Your task to perform on an android device: Show me popular games on the Play Store Image 0: 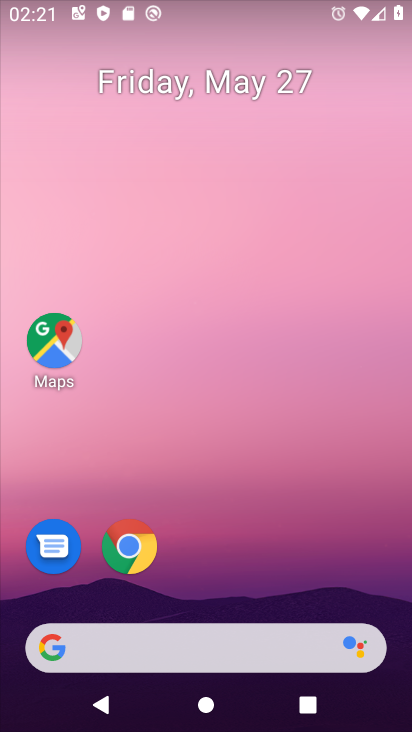
Step 0: drag from (223, 677) to (277, 150)
Your task to perform on an android device: Show me popular games on the Play Store Image 1: 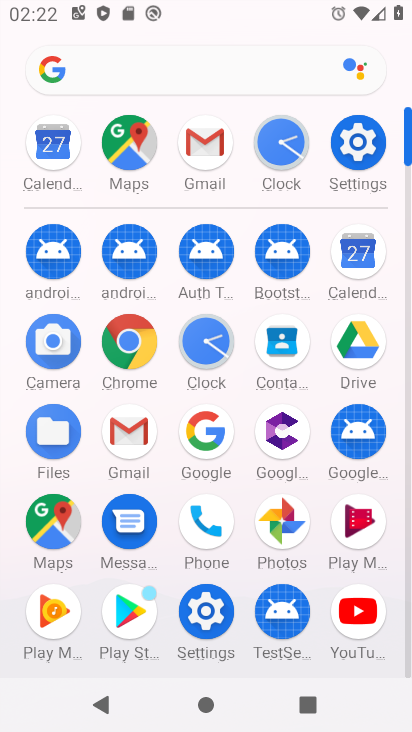
Step 1: click (142, 598)
Your task to perform on an android device: Show me popular games on the Play Store Image 2: 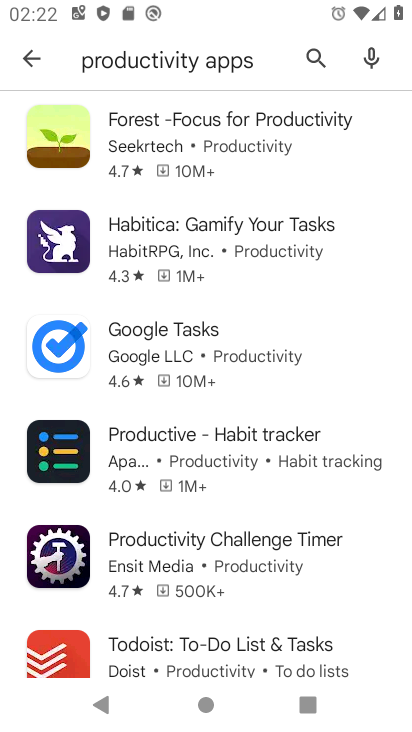
Step 2: click (312, 56)
Your task to perform on an android device: Show me popular games on the Play Store Image 3: 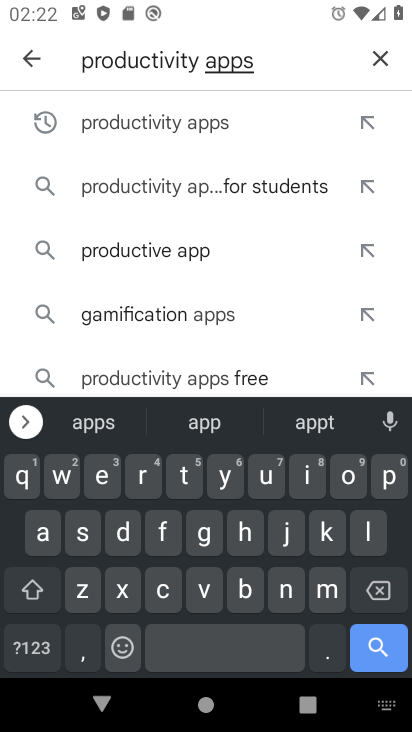
Step 3: click (370, 54)
Your task to perform on an android device: Show me popular games on the Play Store Image 4: 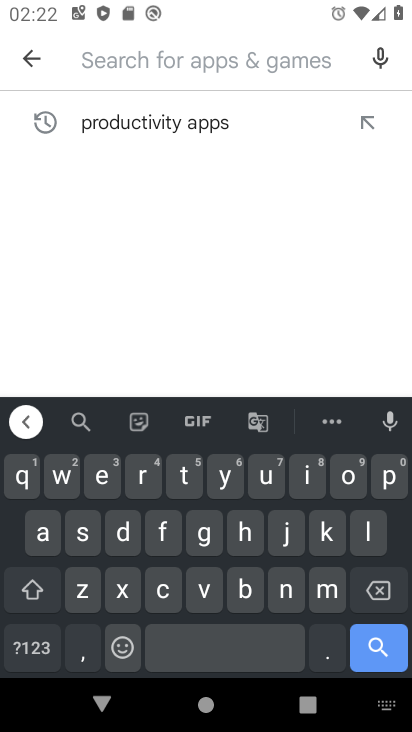
Step 4: click (385, 489)
Your task to perform on an android device: Show me popular games on the Play Store Image 5: 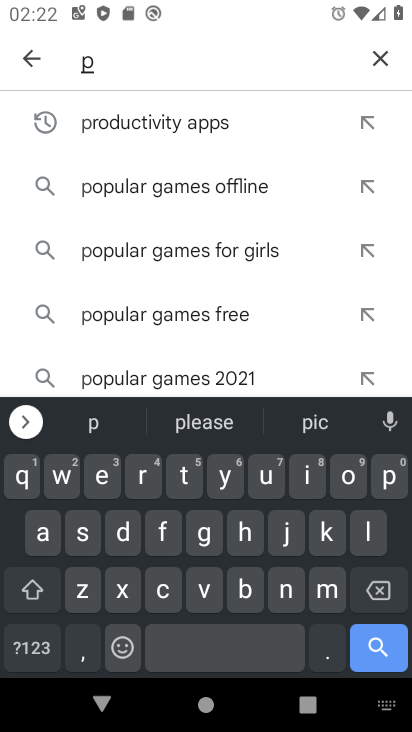
Step 5: click (345, 479)
Your task to perform on an android device: Show me popular games on the Play Store Image 6: 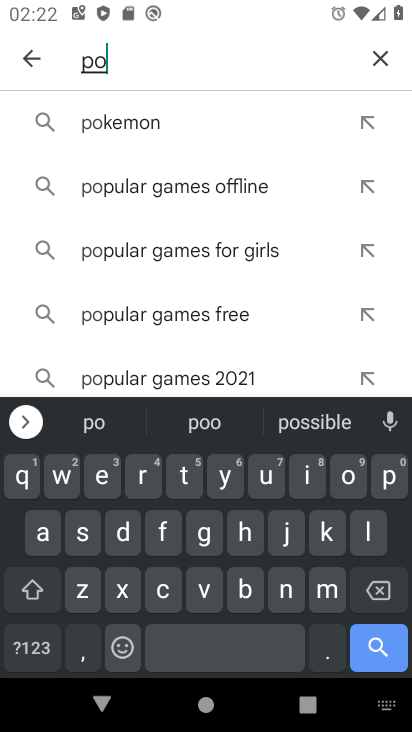
Step 6: click (388, 487)
Your task to perform on an android device: Show me popular games on the Play Store Image 7: 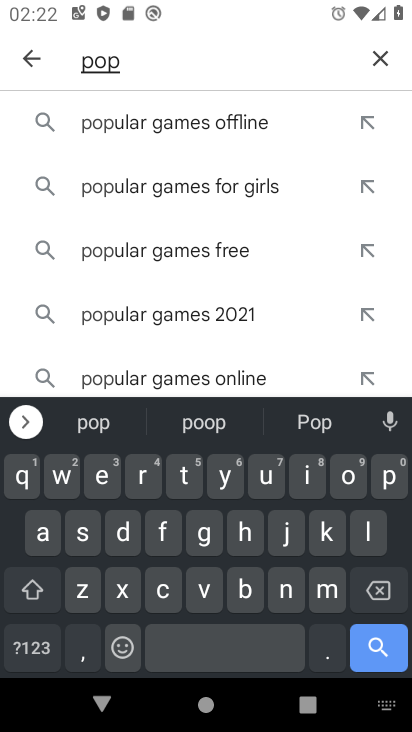
Step 7: click (267, 472)
Your task to perform on an android device: Show me popular games on the Play Store Image 8: 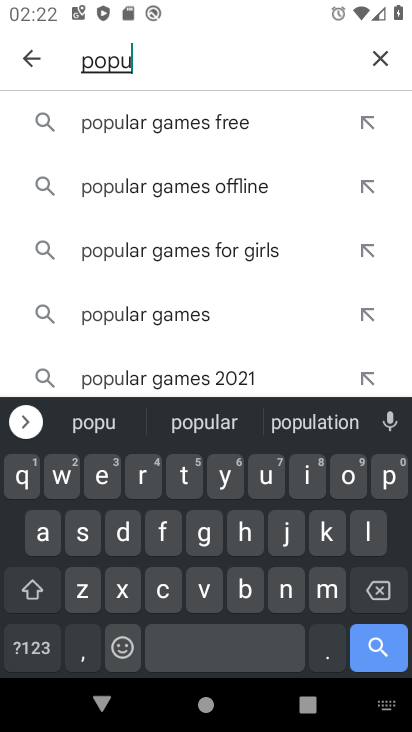
Step 8: click (200, 421)
Your task to perform on an android device: Show me popular games on the Play Store Image 9: 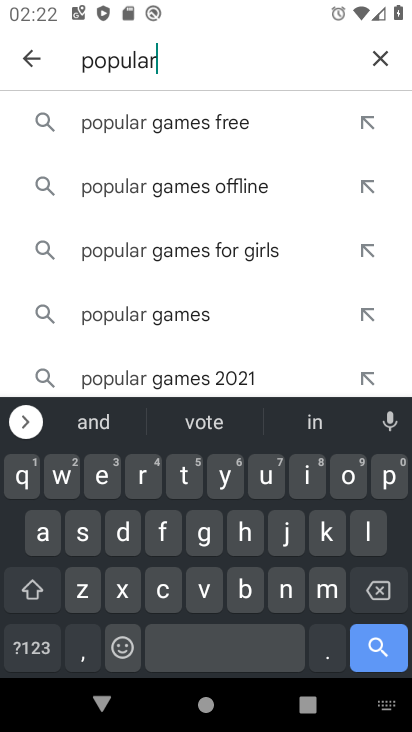
Step 9: click (178, 317)
Your task to perform on an android device: Show me popular games on the Play Store Image 10: 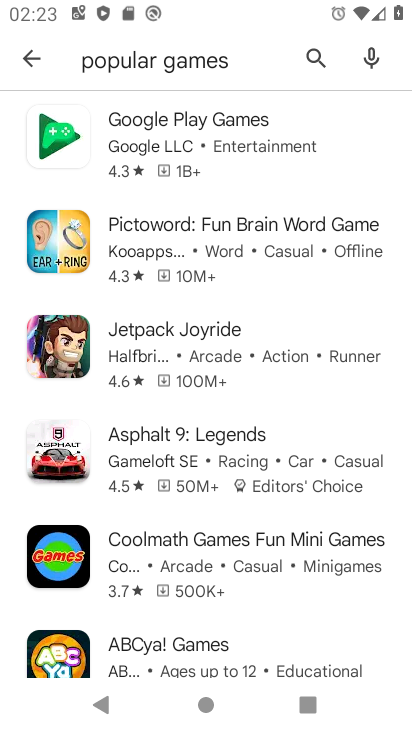
Step 10: task complete